Your task to perform on an android device: toggle notifications settings in the gmail app Image 0: 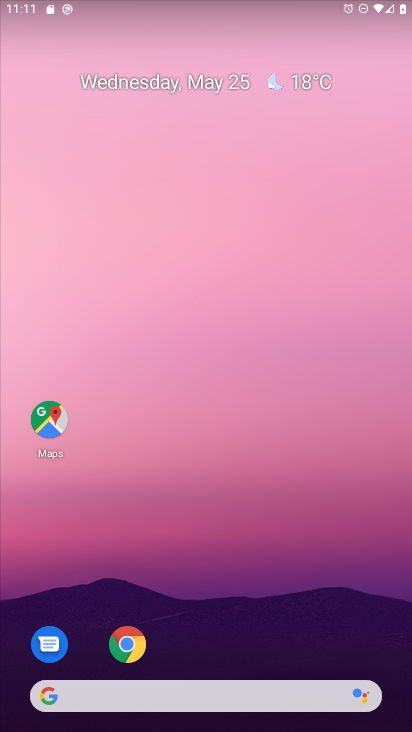
Step 0: drag from (226, 668) to (264, 29)
Your task to perform on an android device: toggle notifications settings in the gmail app Image 1: 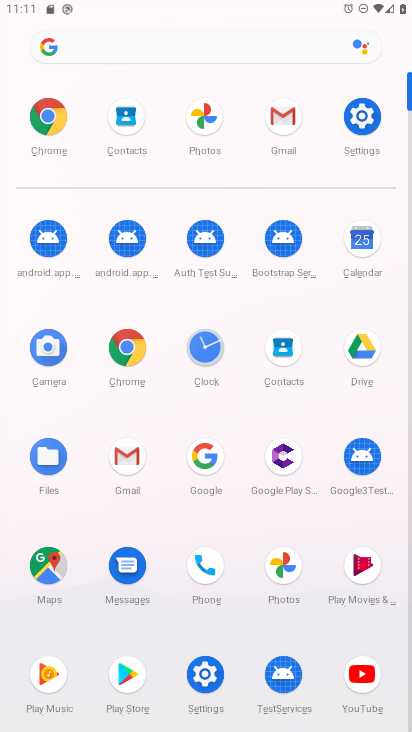
Step 1: click (277, 106)
Your task to perform on an android device: toggle notifications settings in the gmail app Image 2: 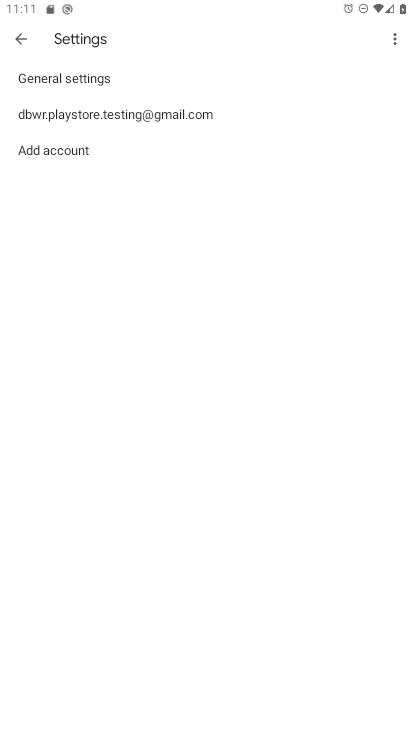
Step 2: click (121, 73)
Your task to perform on an android device: toggle notifications settings in the gmail app Image 3: 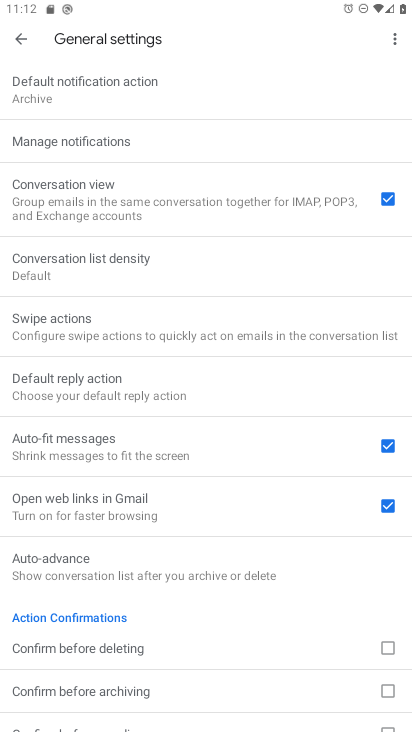
Step 3: click (144, 135)
Your task to perform on an android device: toggle notifications settings in the gmail app Image 4: 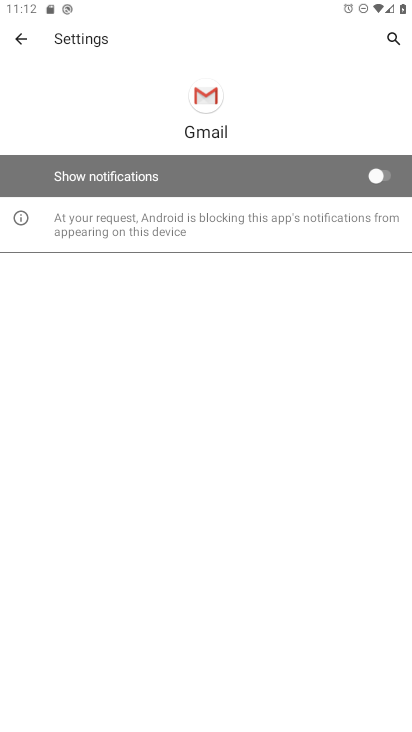
Step 4: click (379, 172)
Your task to perform on an android device: toggle notifications settings in the gmail app Image 5: 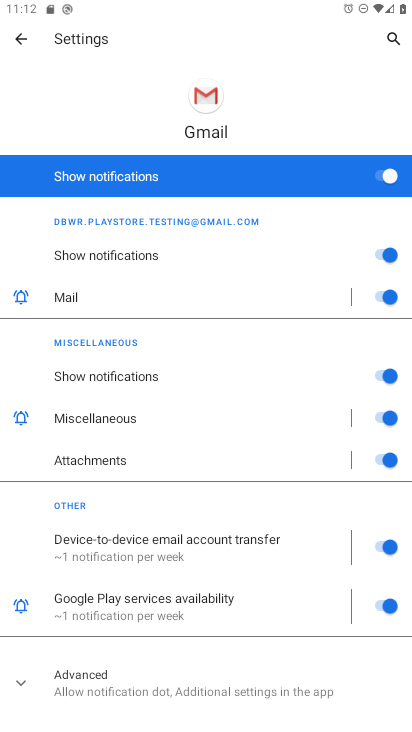
Step 5: task complete